Your task to perform on an android device: Open sound settings Image 0: 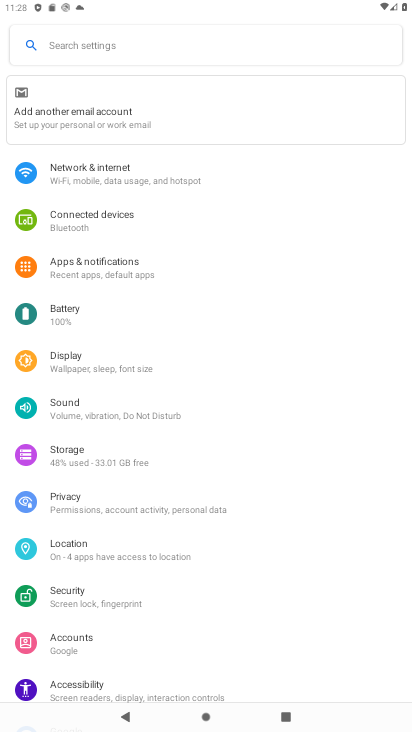
Step 0: click (80, 406)
Your task to perform on an android device: Open sound settings Image 1: 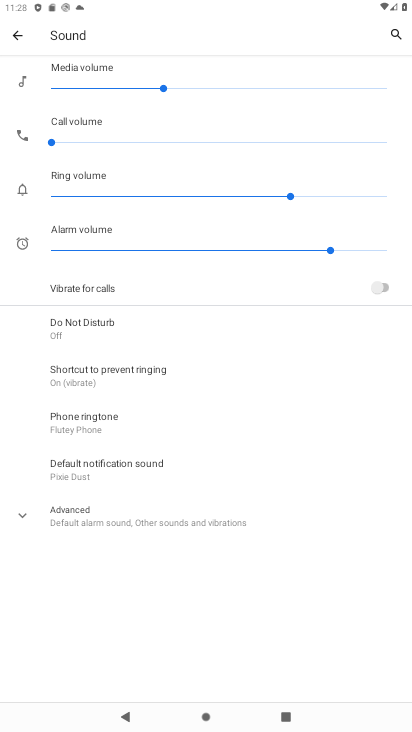
Step 1: task complete